Your task to perform on an android device: Open the Play Movies app and select the watchlist tab. Image 0: 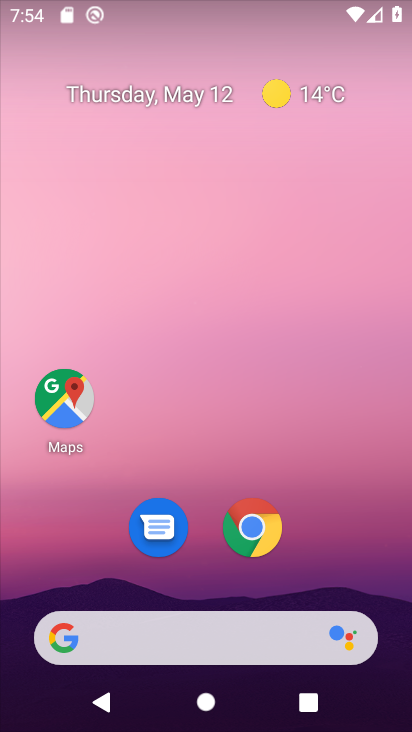
Step 0: drag from (342, 554) to (345, 112)
Your task to perform on an android device: Open the Play Movies app and select the watchlist tab. Image 1: 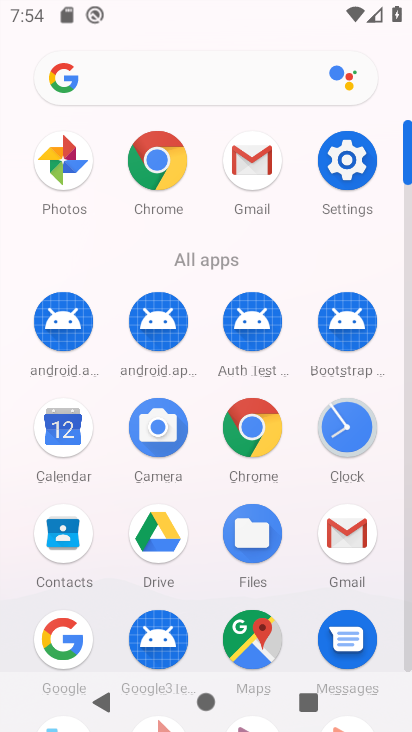
Step 1: drag from (301, 571) to (331, 100)
Your task to perform on an android device: Open the Play Movies app and select the watchlist tab. Image 2: 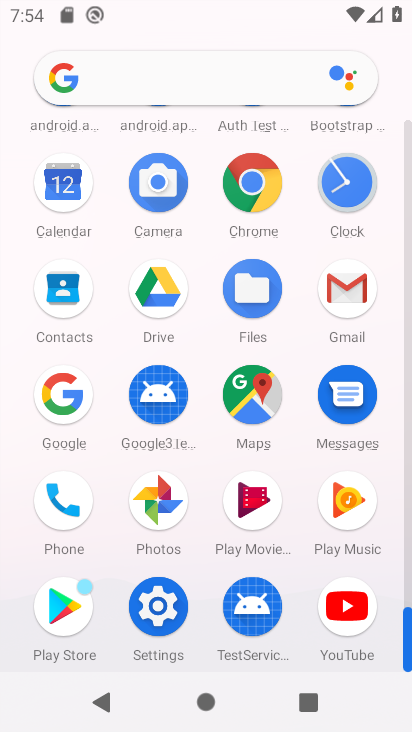
Step 2: click (268, 510)
Your task to perform on an android device: Open the Play Movies app and select the watchlist tab. Image 3: 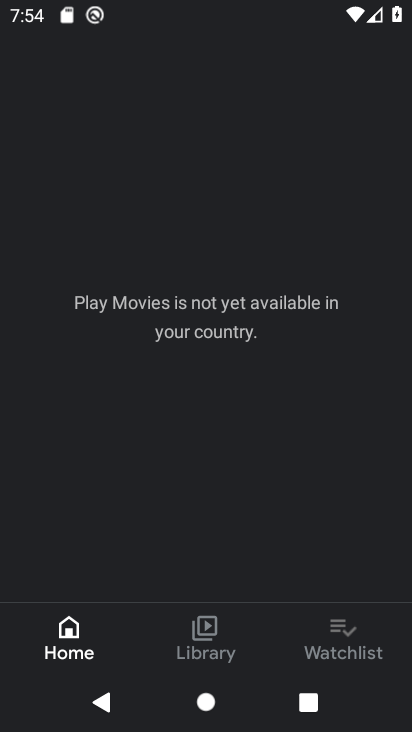
Step 3: click (351, 632)
Your task to perform on an android device: Open the Play Movies app and select the watchlist tab. Image 4: 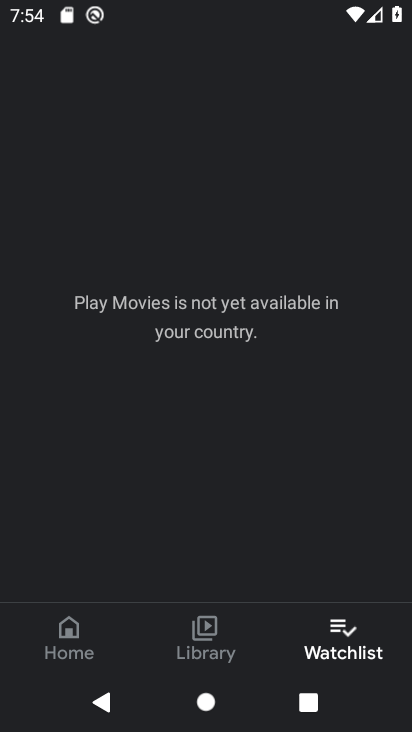
Step 4: task complete